Your task to perform on an android device: remove spam from my inbox in the gmail app Image 0: 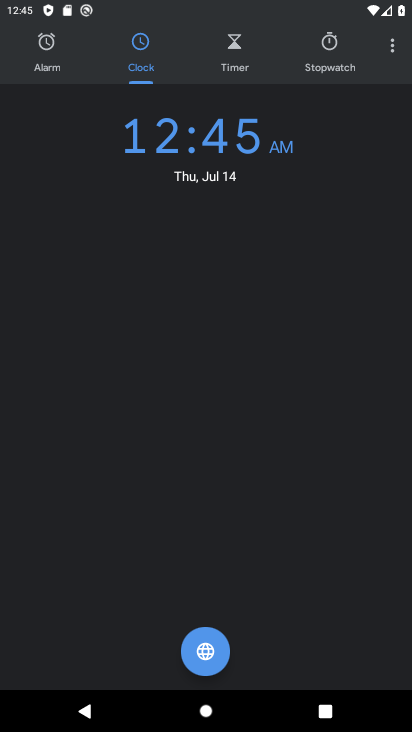
Step 0: press home button
Your task to perform on an android device: remove spam from my inbox in the gmail app Image 1: 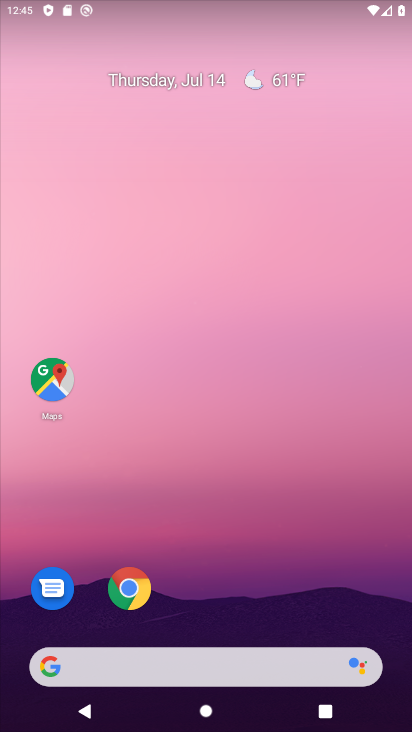
Step 1: drag from (210, 599) to (214, 292)
Your task to perform on an android device: remove spam from my inbox in the gmail app Image 2: 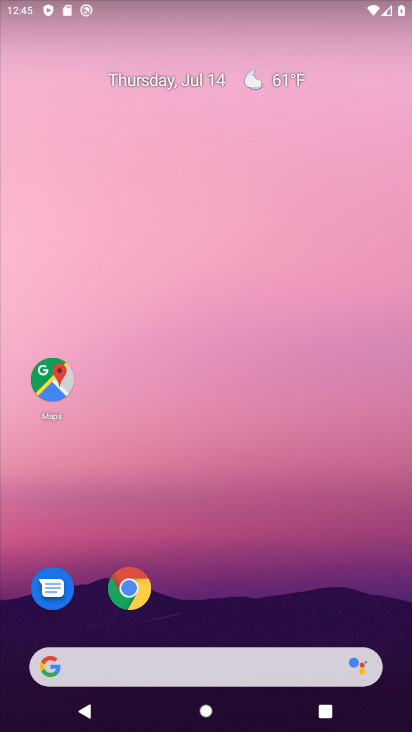
Step 2: drag from (225, 629) to (236, 267)
Your task to perform on an android device: remove spam from my inbox in the gmail app Image 3: 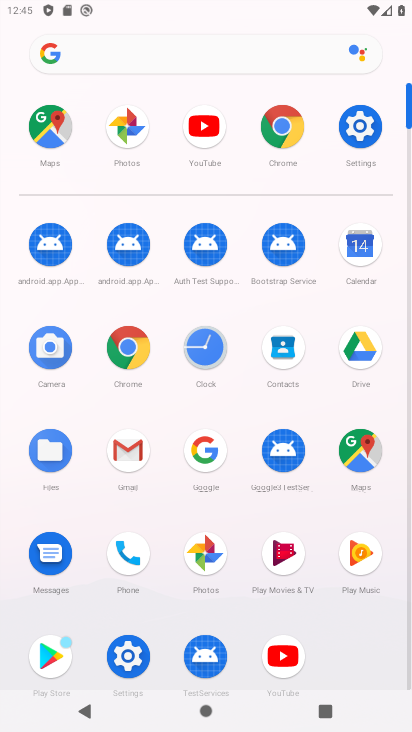
Step 3: click (123, 437)
Your task to perform on an android device: remove spam from my inbox in the gmail app Image 4: 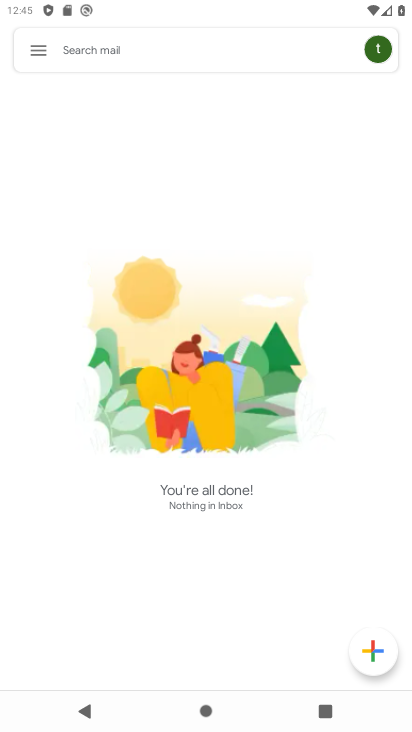
Step 4: click (44, 53)
Your task to perform on an android device: remove spam from my inbox in the gmail app Image 5: 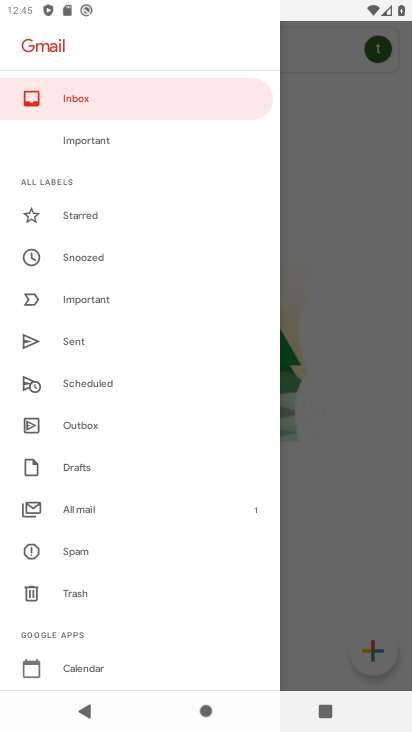
Step 5: click (77, 555)
Your task to perform on an android device: remove spam from my inbox in the gmail app Image 6: 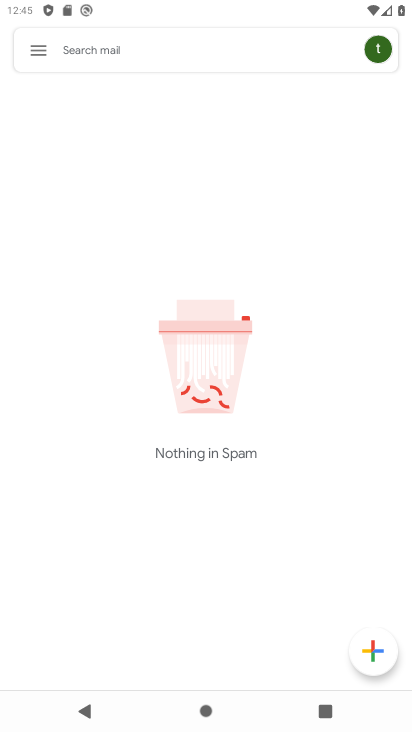
Step 6: task complete